Your task to perform on an android device: Set the phone to "Do not disturb". Image 0: 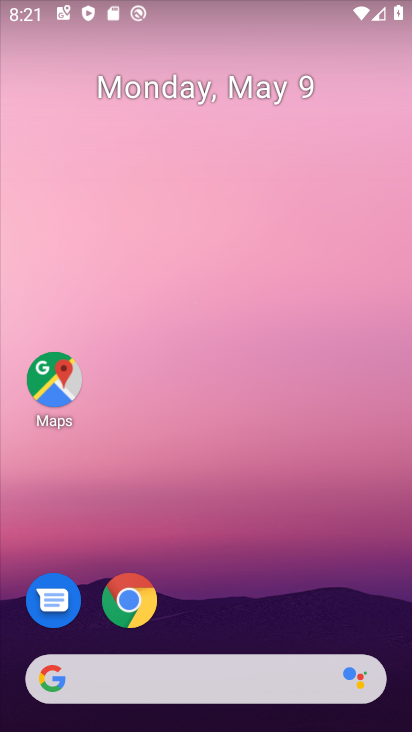
Step 0: drag from (244, 587) to (228, 50)
Your task to perform on an android device: Set the phone to "Do not disturb". Image 1: 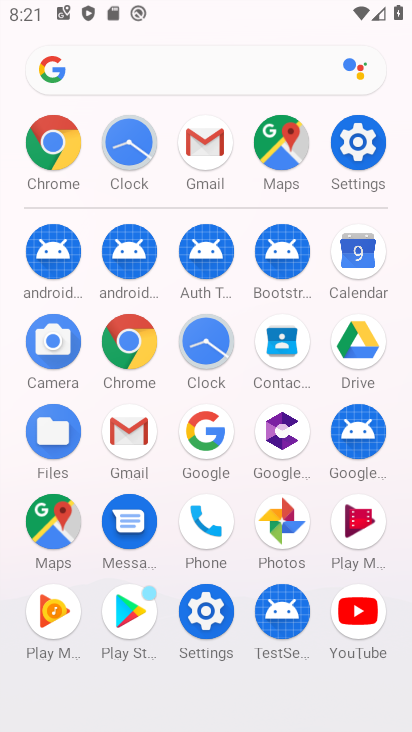
Step 1: drag from (9, 563) to (5, 225)
Your task to perform on an android device: Set the phone to "Do not disturb". Image 2: 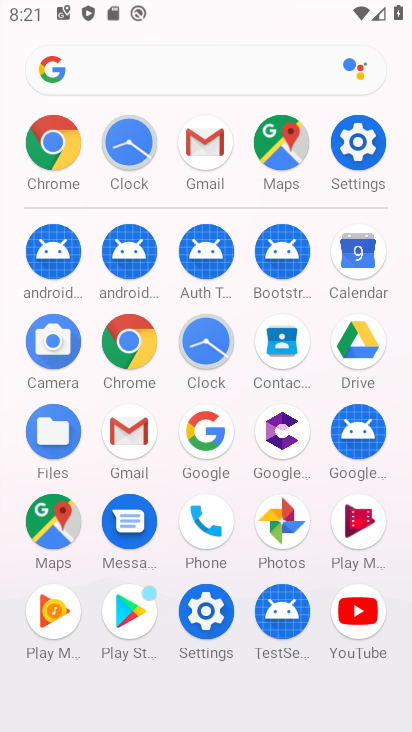
Step 2: click (207, 609)
Your task to perform on an android device: Set the phone to "Do not disturb". Image 3: 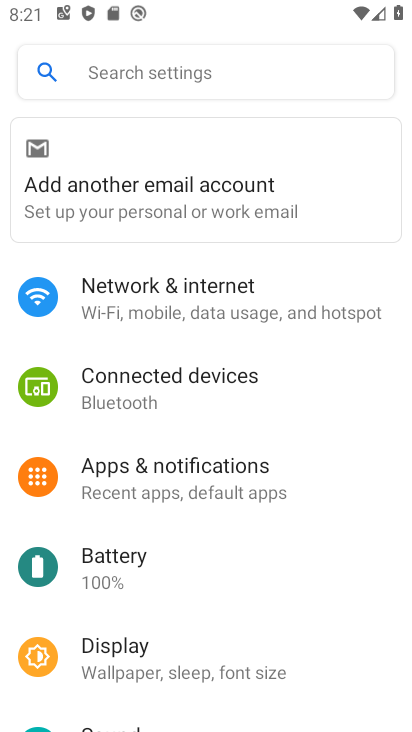
Step 3: drag from (265, 614) to (291, 231)
Your task to perform on an android device: Set the phone to "Do not disturb". Image 4: 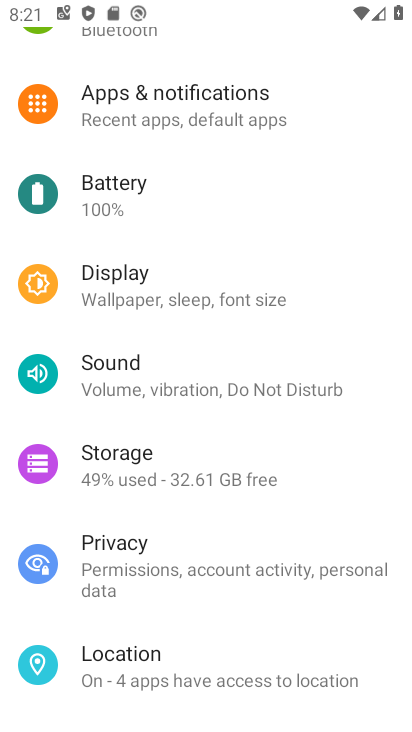
Step 4: click (183, 388)
Your task to perform on an android device: Set the phone to "Do not disturb". Image 5: 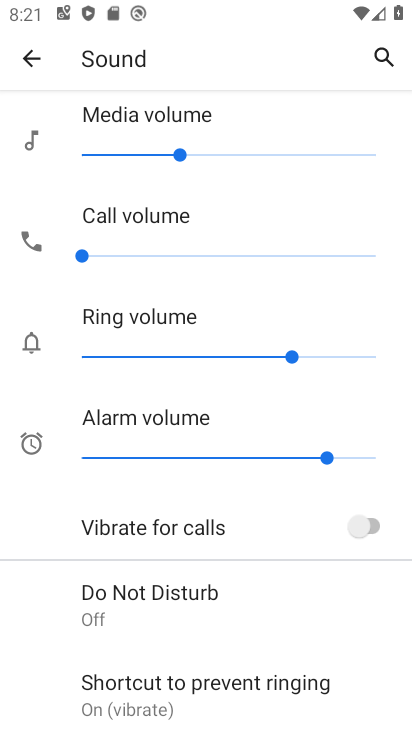
Step 5: drag from (207, 591) to (233, 141)
Your task to perform on an android device: Set the phone to "Do not disturb". Image 6: 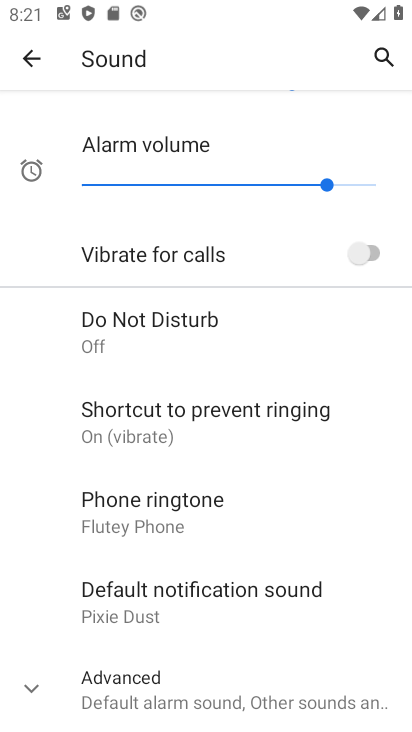
Step 6: click (39, 693)
Your task to perform on an android device: Set the phone to "Do not disturb". Image 7: 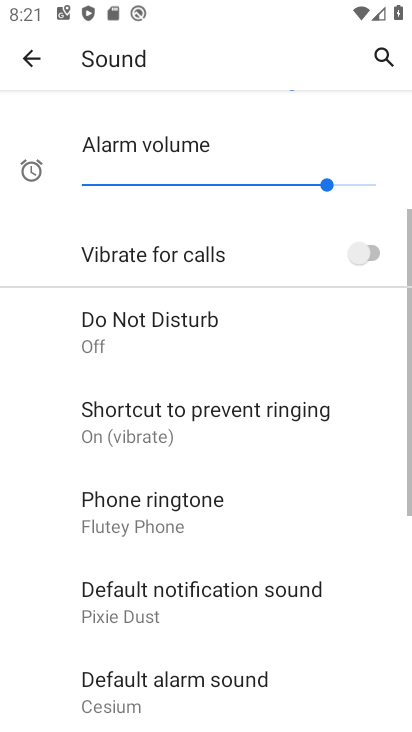
Step 7: click (149, 332)
Your task to perform on an android device: Set the phone to "Do not disturb". Image 8: 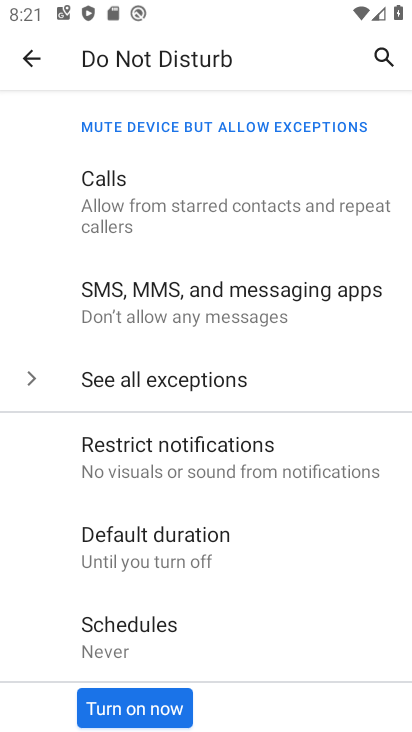
Step 8: click (141, 700)
Your task to perform on an android device: Set the phone to "Do not disturb". Image 9: 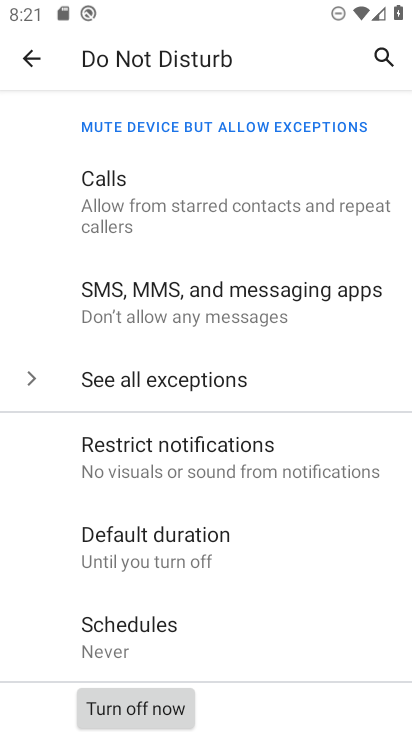
Step 9: task complete